Your task to perform on an android device: Open the stopwatch Image 0: 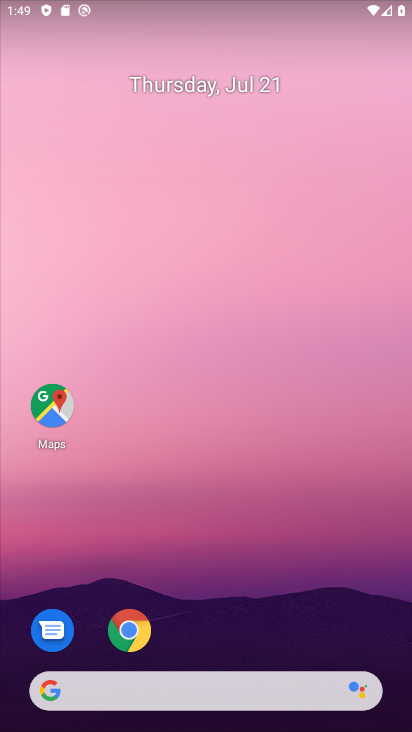
Step 0: drag from (188, 603) to (168, 127)
Your task to perform on an android device: Open the stopwatch Image 1: 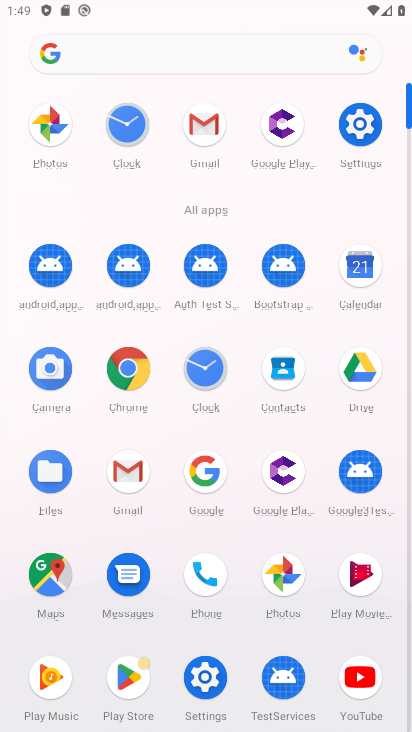
Step 1: click (210, 370)
Your task to perform on an android device: Open the stopwatch Image 2: 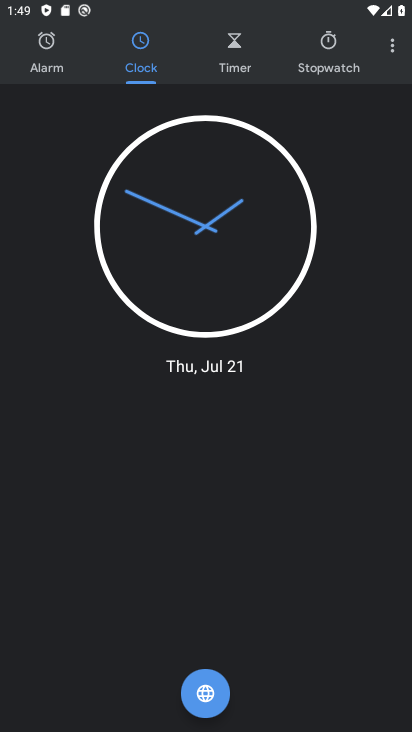
Step 2: click (320, 57)
Your task to perform on an android device: Open the stopwatch Image 3: 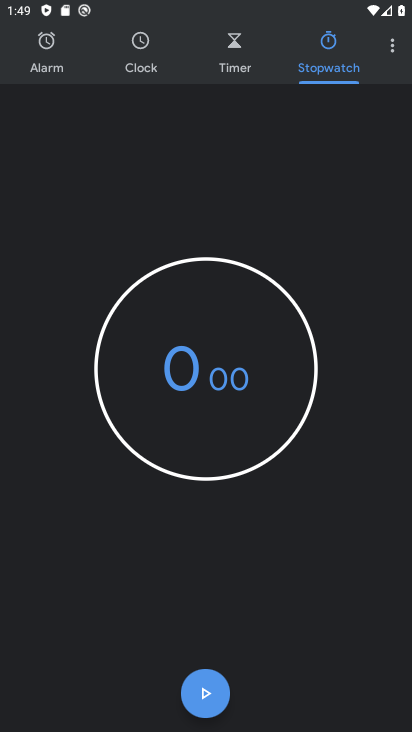
Step 3: click (206, 703)
Your task to perform on an android device: Open the stopwatch Image 4: 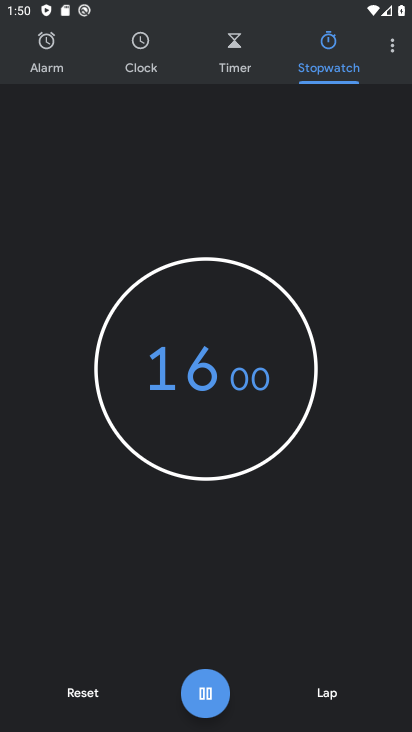
Step 4: task complete